Your task to perform on an android device: Open wifi settings Image 0: 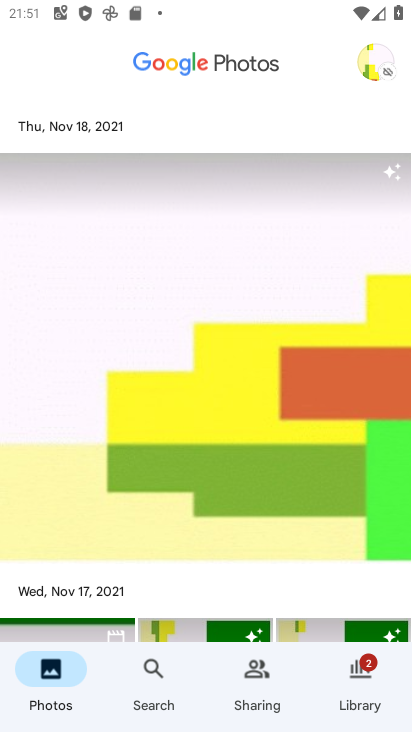
Step 0: press home button
Your task to perform on an android device: Open wifi settings Image 1: 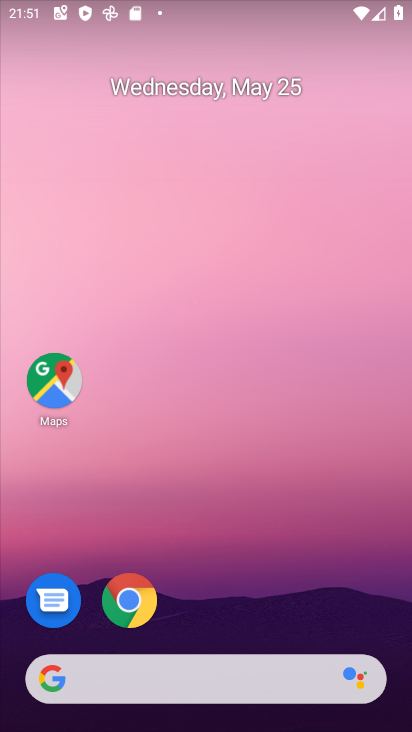
Step 1: drag from (345, 601) to (358, 101)
Your task to perform on an android device: Open wifi settings Image 2: 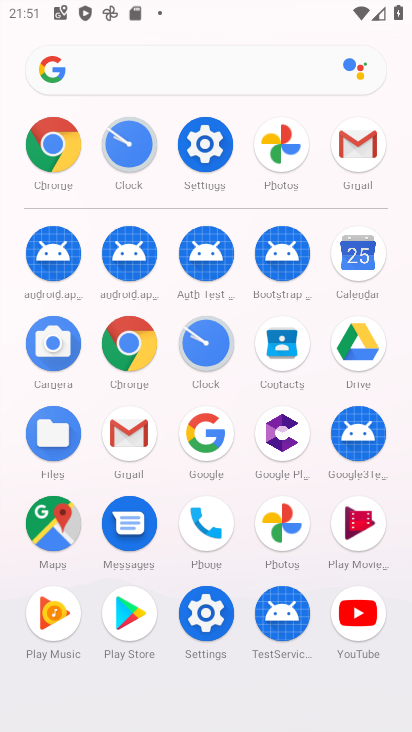
Step 2: click (200, 613)
Your task to perform on an android device: Open wifi settings Image 3: 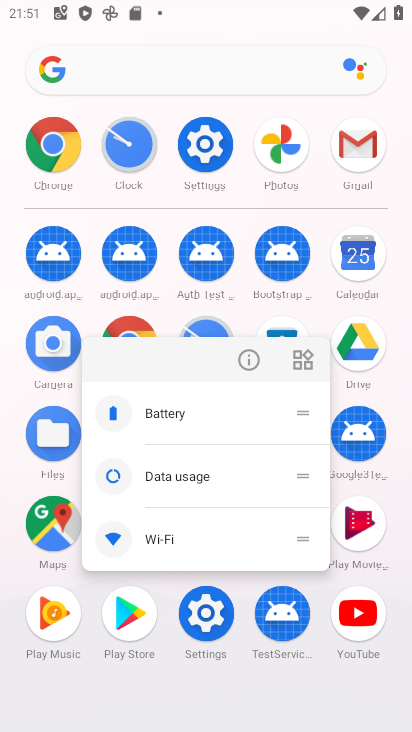
Step 3: click (204, 620)
Your task to perform on an android device: Open wifi settings Image 4: 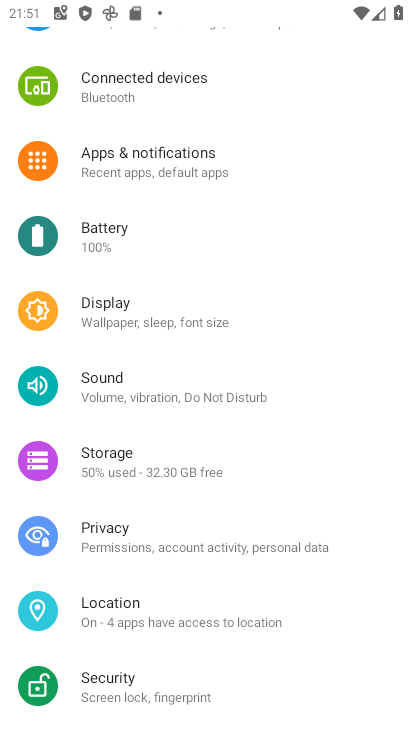
Step 4: drag from (154, 189) to (179, 604)
Your task to perform on an android device: Open wifi settings Image 5: 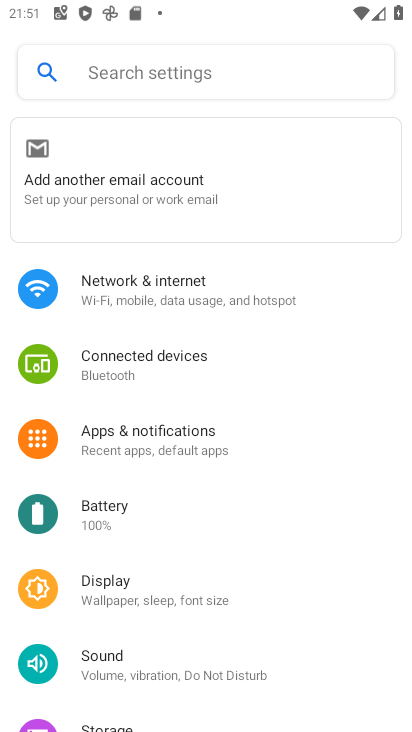
Step 5: click (177, 290)
Your task to perform on an android device: Open wifi settings Image 6: 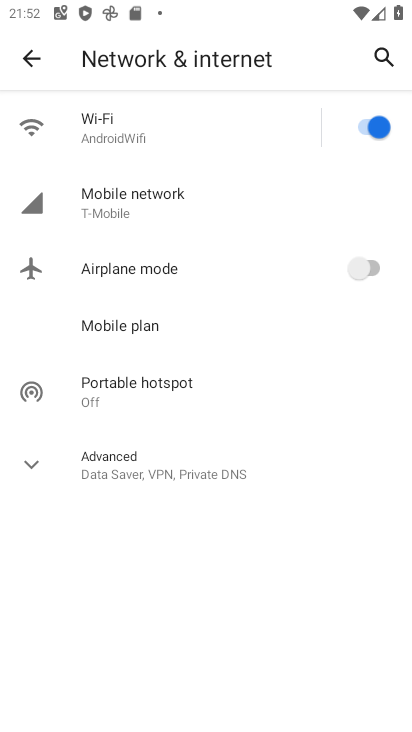
Step 6: task complete